Your task to perform on an android device: turn off data saver in the chrome app Image 0: 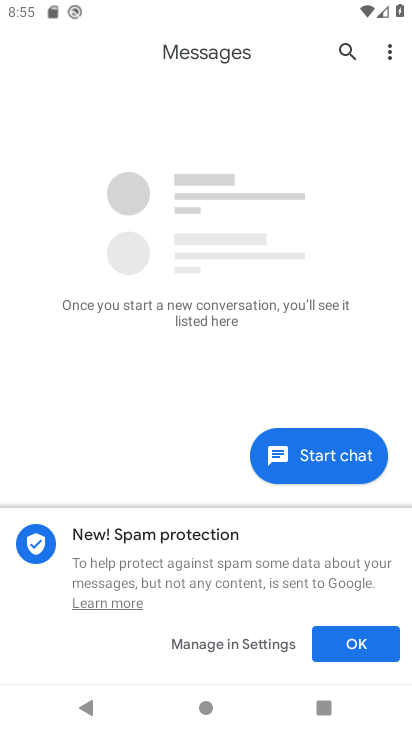
Step 0: press home button
Your task to perform on an android device: turn off data saver in the chrome app Image 1: 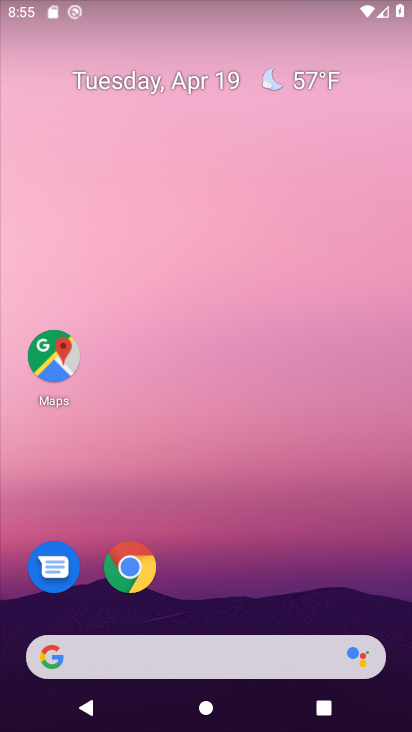
Step 1: click (136, 570)
Your task to perform on an android device: turn off data saver in the chrome app Image 2: 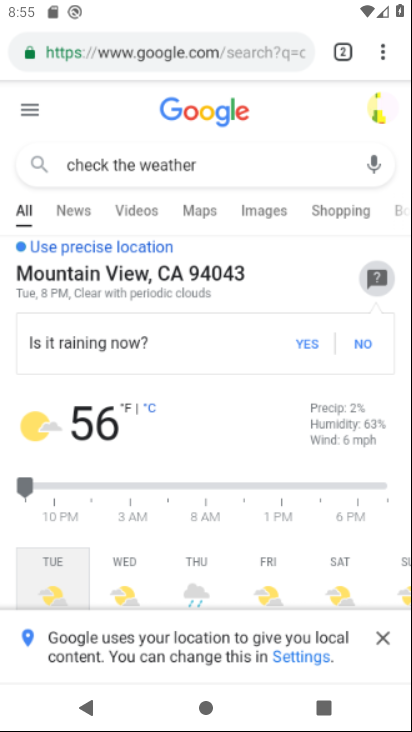
Step 2: click (144, 570)
Your task to perform on an android device: turn off data saver in the chrome app Image 3: 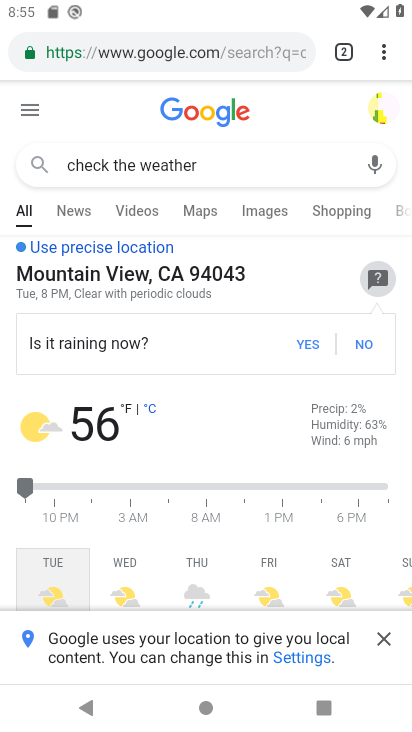
Step 3: click (383, 50)
Your task to perform on an android device: turn off data saver in the chrome app Image 4: 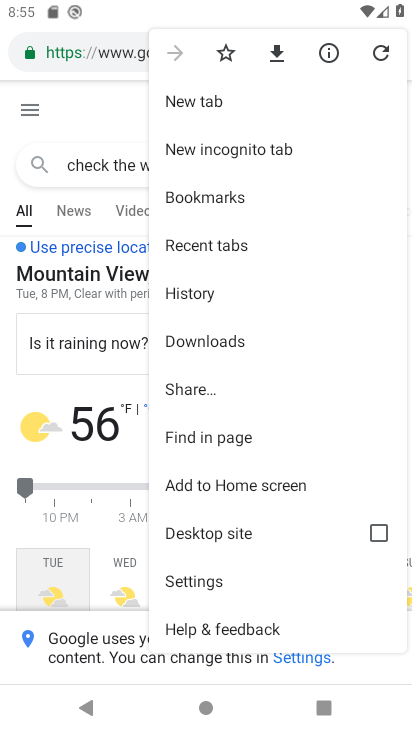
Step 4: click (237, 577)
Your task to perform on an android device: turn off data saver in the chrome app Image 5: 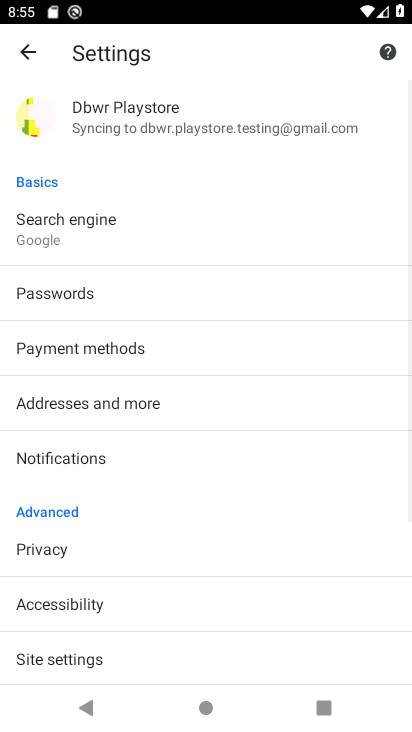
Step 5: drag from (189, 573) to (137, 129)
Your task to perform on an android device: turn off data saver in the chrome app Image 6: 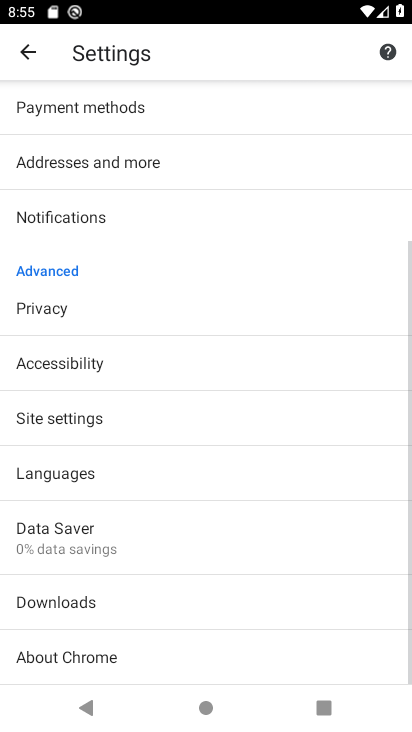
Step 6: click (75, 523)
Your task to perform on an android device: turn off data saver in the chrome app Image 7: 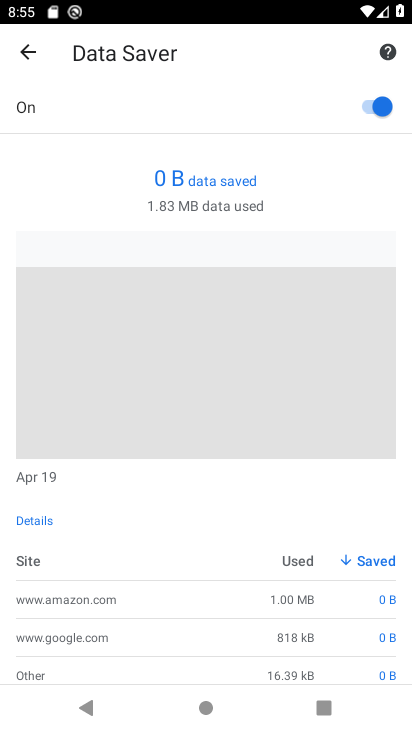
Step 7: click (381, 106)
Your task to perform on an android device: turn off data saver in the chrome app Image 8: 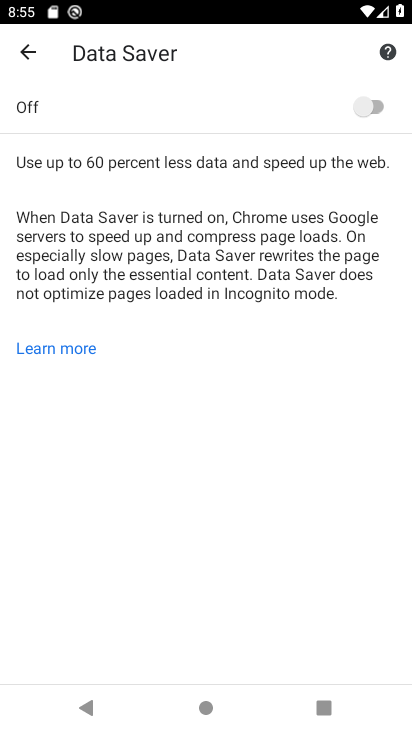
Step 8: task complete